Your task to perform on an android device: set default search engine in the chrome app Image 0: 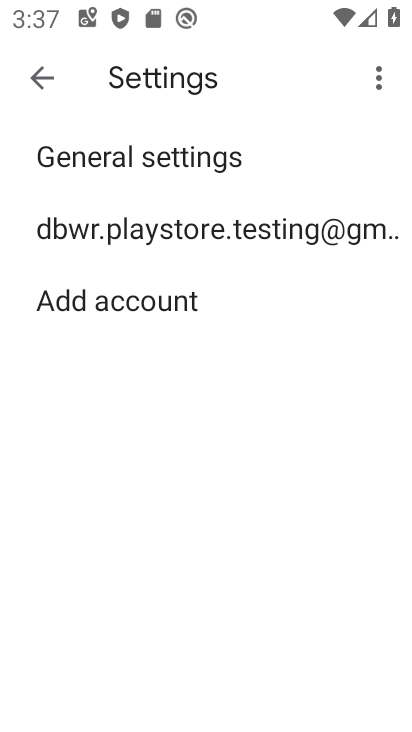
Step 0: press home button
Your task to perform on an android device: set default search engine in the chrome app Image 1: 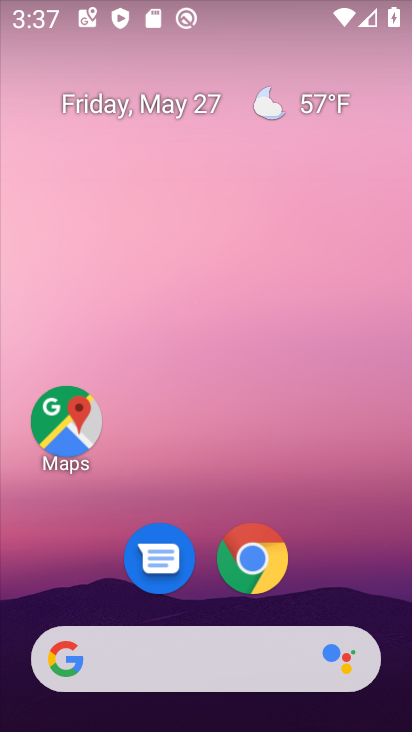
Step 1: click (353, 574)
Your task to perform on an android device: set default search engine in the chrome app Image 2: 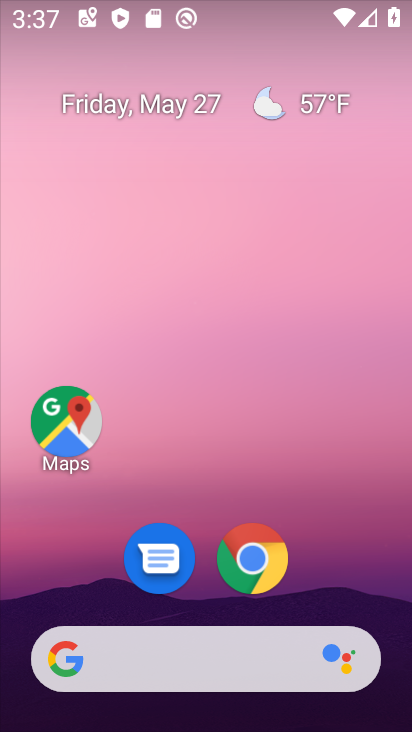
Step 2: click (276, 570)
Your task to perform on an android device: set default search engine in the chrome app Image 3: 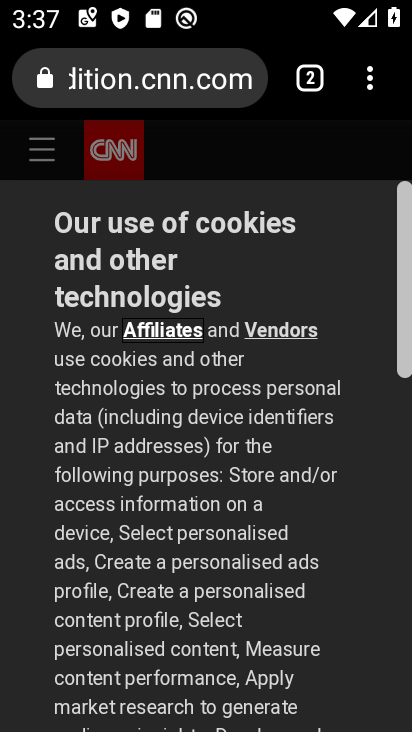
Step 3: click (375, 98)
Your task to perform on an android device: set default search engine in the chrome app Image 4: 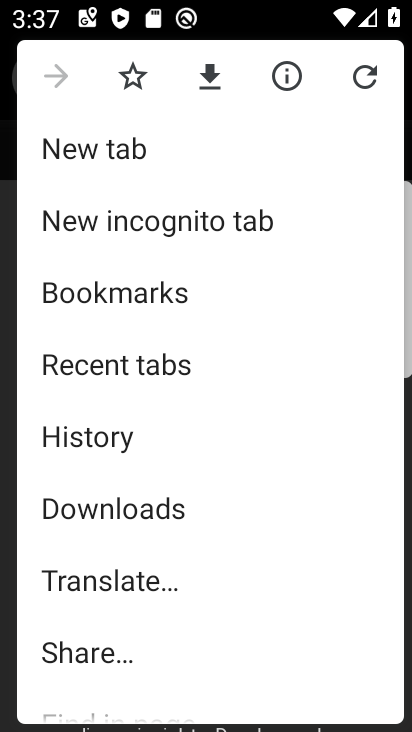
Step 4: drag from (145, 624) to (166, 350)
Your task to perform on an android device: set default search engine in the chrome app Image 5: 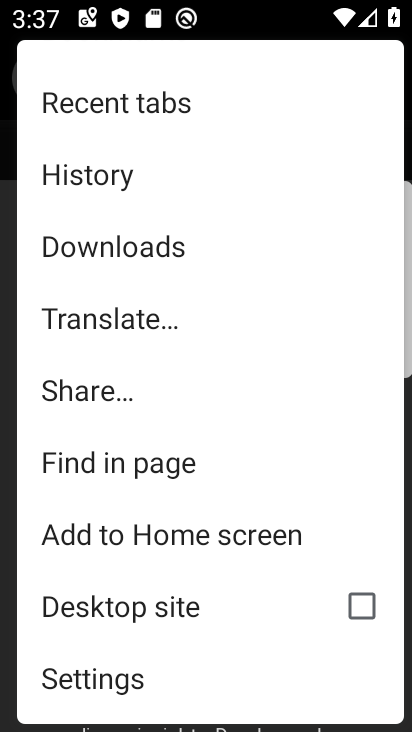
Step 5: click (147, 674)
Your task to perform on an android device: set default search engine in the chrome app Image 6: 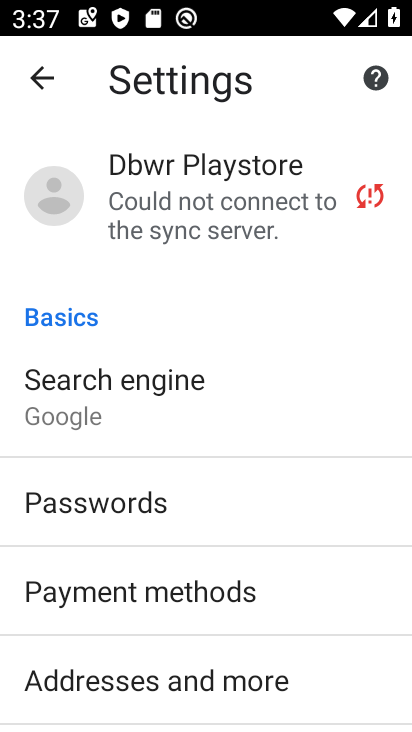
Step 6: drag from (190, 587) to (200, 415)
Your task to perform on an android device: set default search engine in the chrome app Image 7: 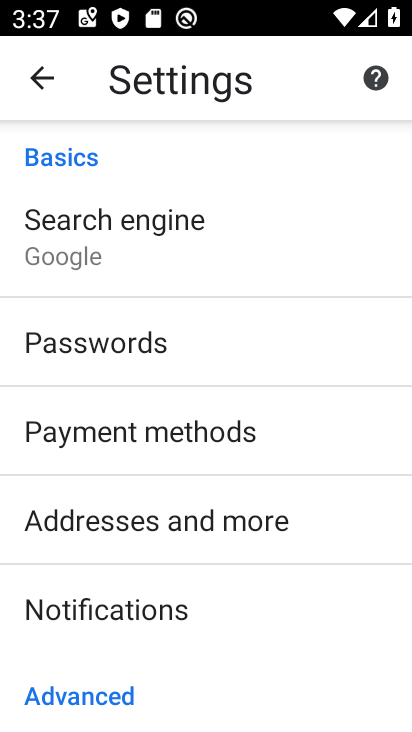
Step 7: click (215, 273)
Your task to perform on an android device: set default search engine in the chrome app Image 8: 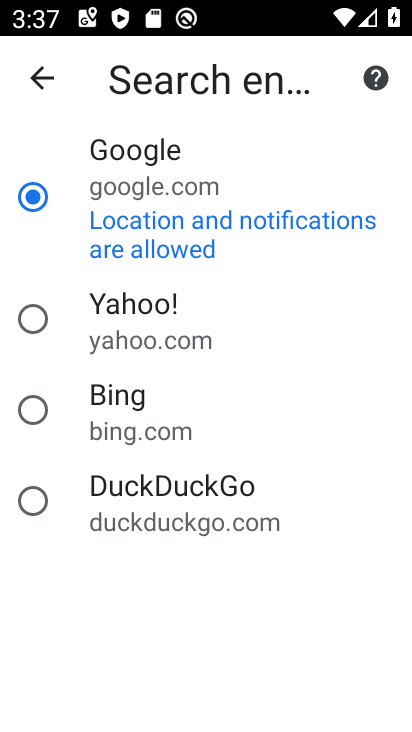
Step 8: click (204, 507)
Your task to perform on an android device: set default search engine in the chrome app Image 9: 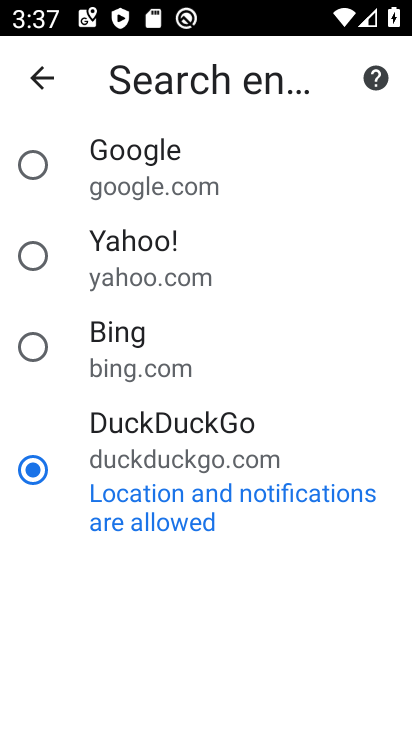
Step 9: task complete